Your task to perform on an android device: turn off smart reply in the gmail app Image 0: 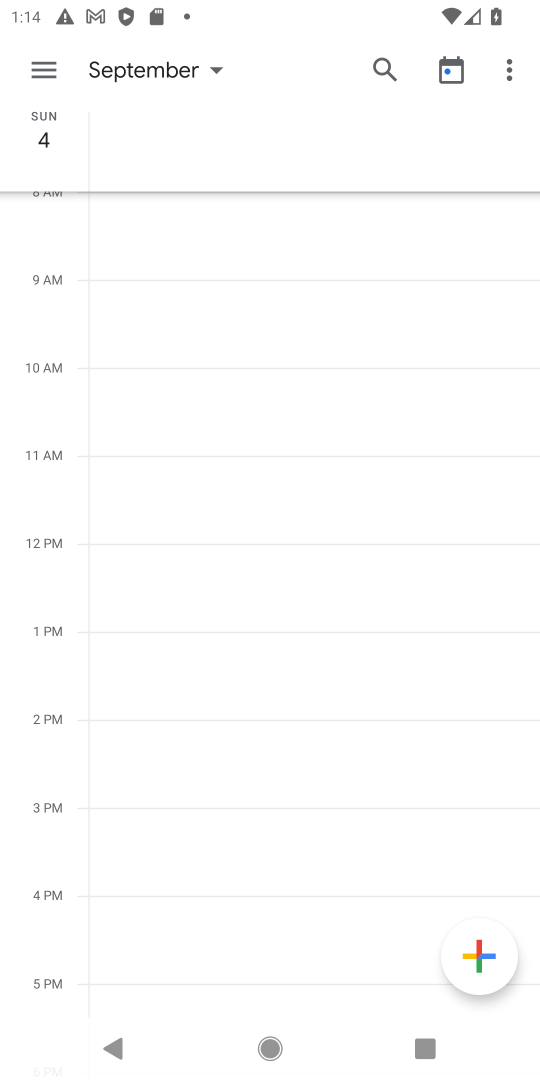
Step 0: press home button
Your task to perform on an android device: turn off smart reply in the gmail app Image 1: 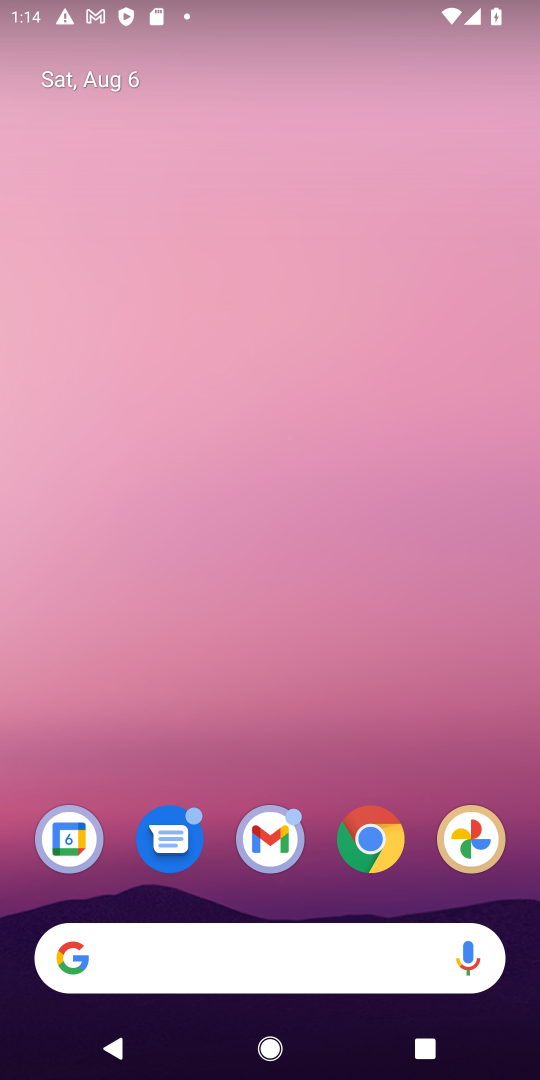
Step 1: click (264, 859)
Your task to perform on an android device: turn off smart reply in the gmail app Image 2: 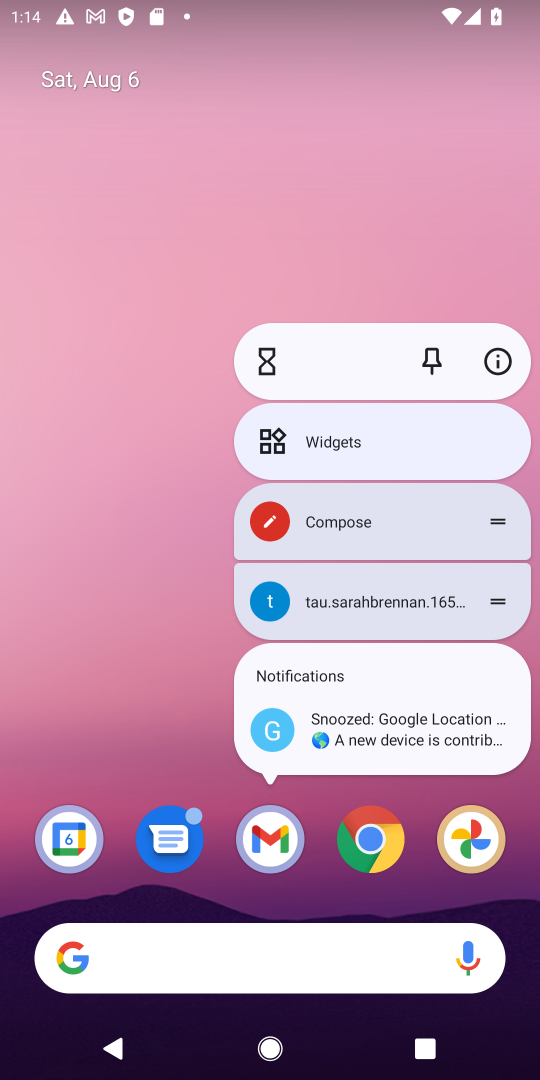
Step 2: click (264, 859)
Your task to perform on an android device: turn off smart reply in the gmail app Image 3: 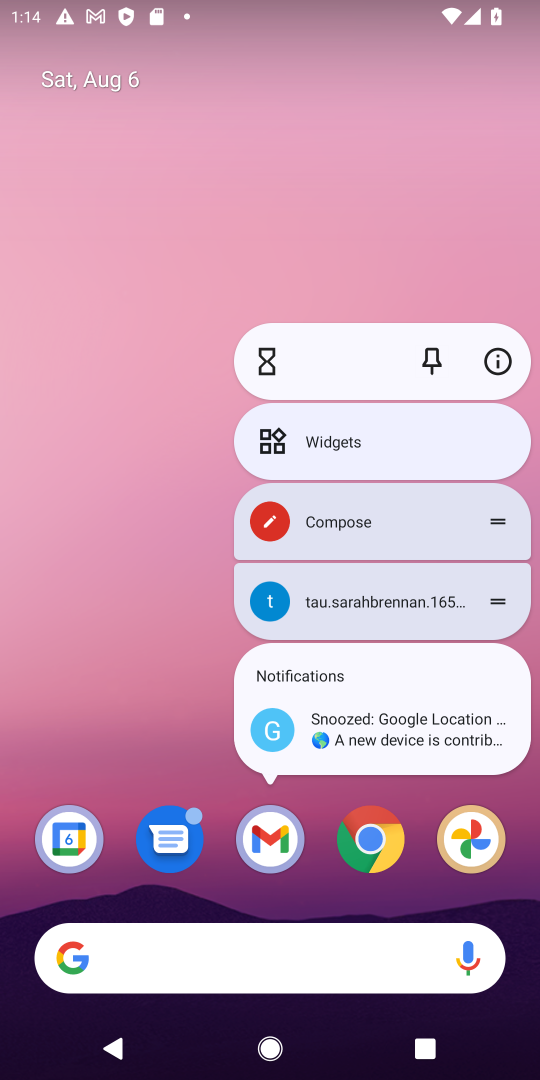
Step 3: click (264, 859)
Your task to perform on an android device: turn off smart reply in the gmail app Image 4: 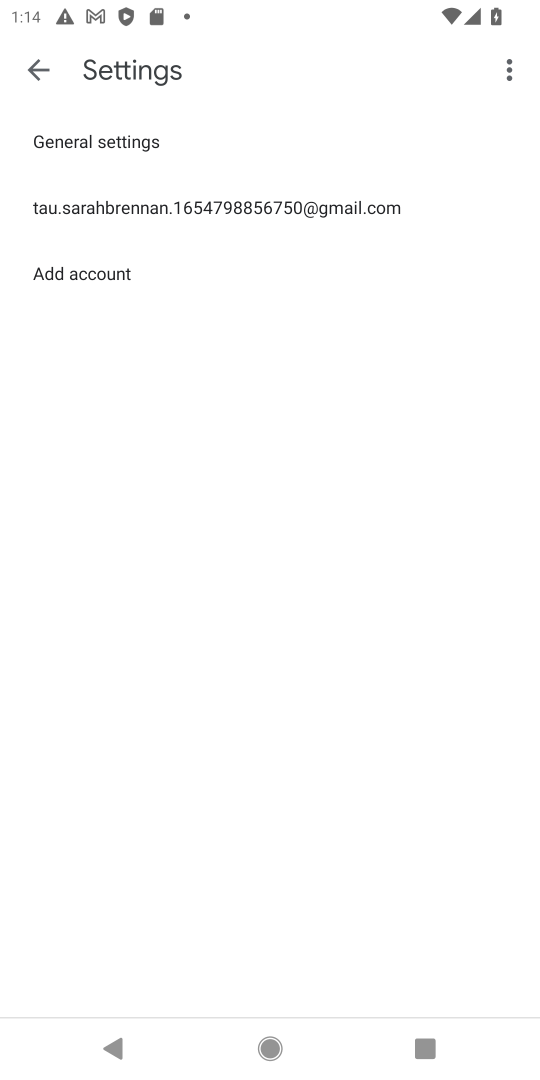
Step 4: click (314, 198)
Your task to perform on an android device: turn off smart reply in the gmail app Image 5: 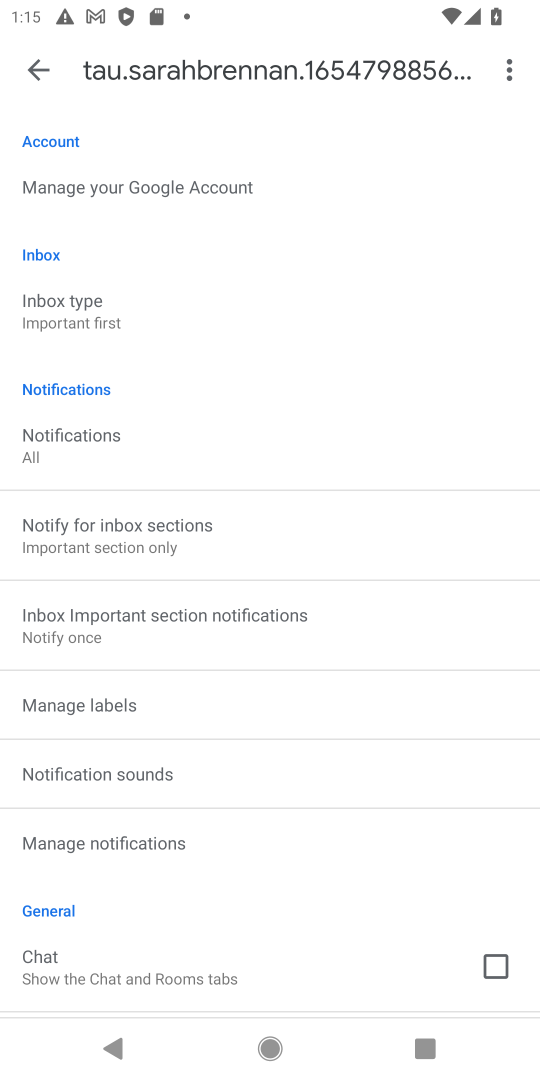
Step 5: drag from (273, 891) to (286, 72)
Your task to perform on an android device: turn off smart reply in the gmail app Image 6: 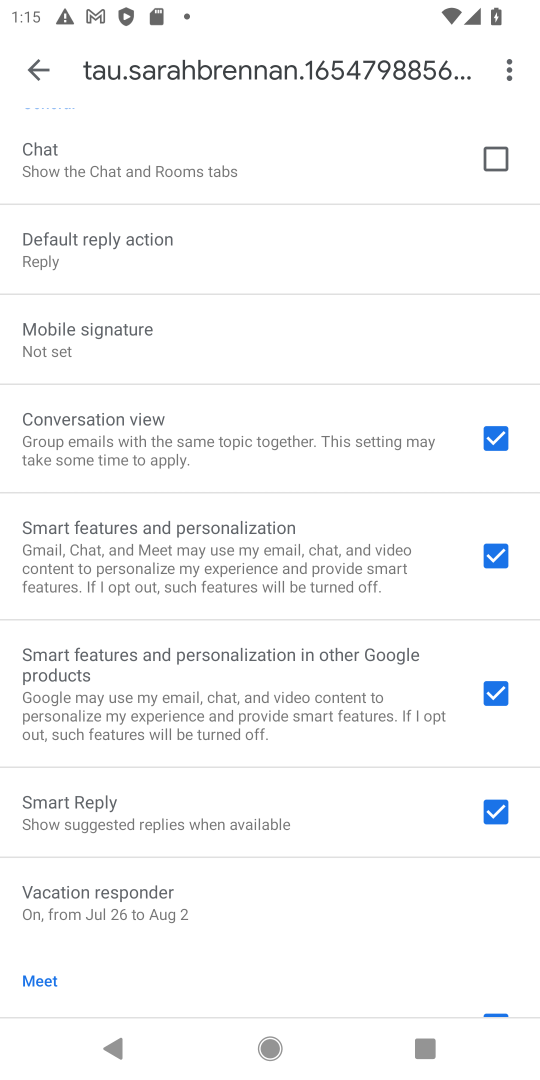
Step 6: drag from (287, 761) to (296, 88)
Your task to perform on an android device: turn off smart reply in the gmail app Image 7: 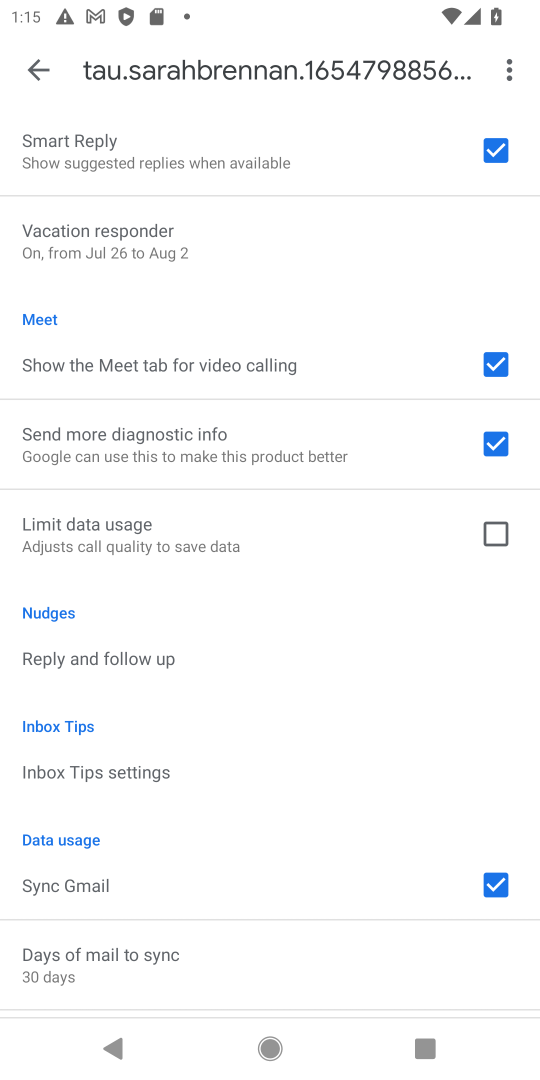
Step 7: drag from (314, 819) to (268, 88)
Your task to perform on an android device: turn off smart reply in the gmail app Image 8: 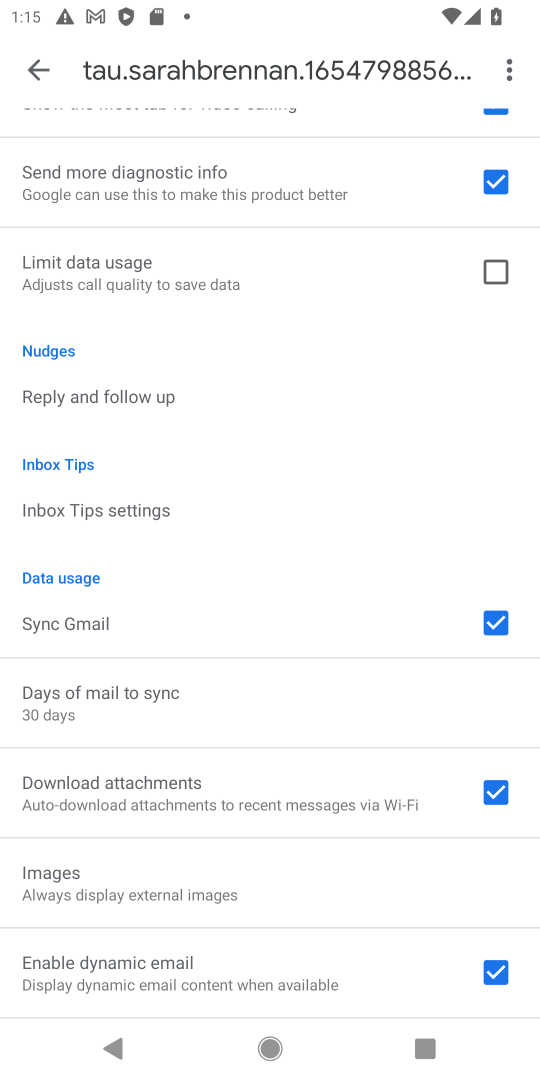
Step 8: drag from (338, 893) to (331, 38)
Your task to perform on an android device: turn off smart reply in the gmail app Image 9: 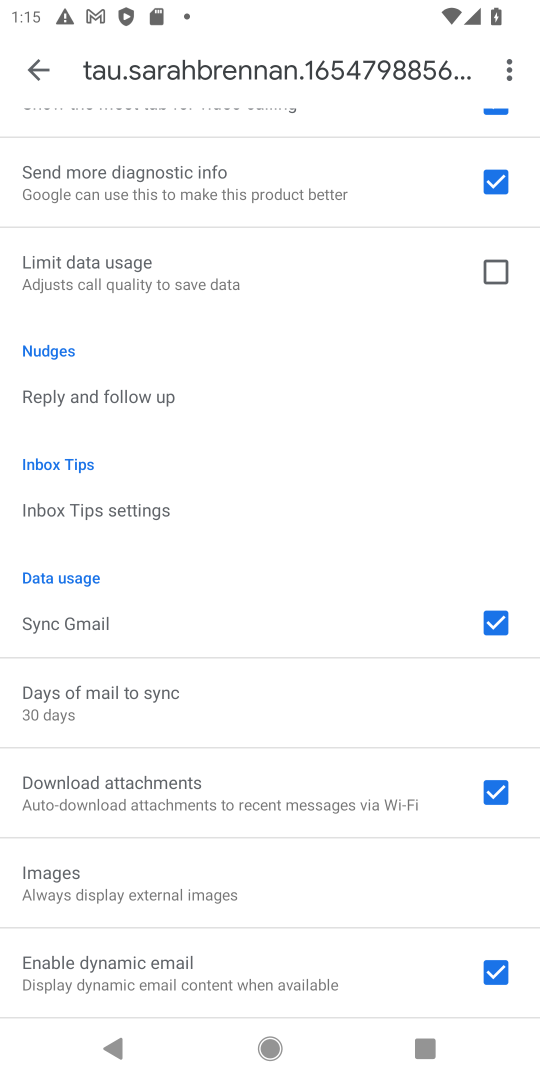
Step 9: drag from (310, 845) to (307, 194)
Your task to perform on an android device: turn off smart reply in the gmail app Image 10: 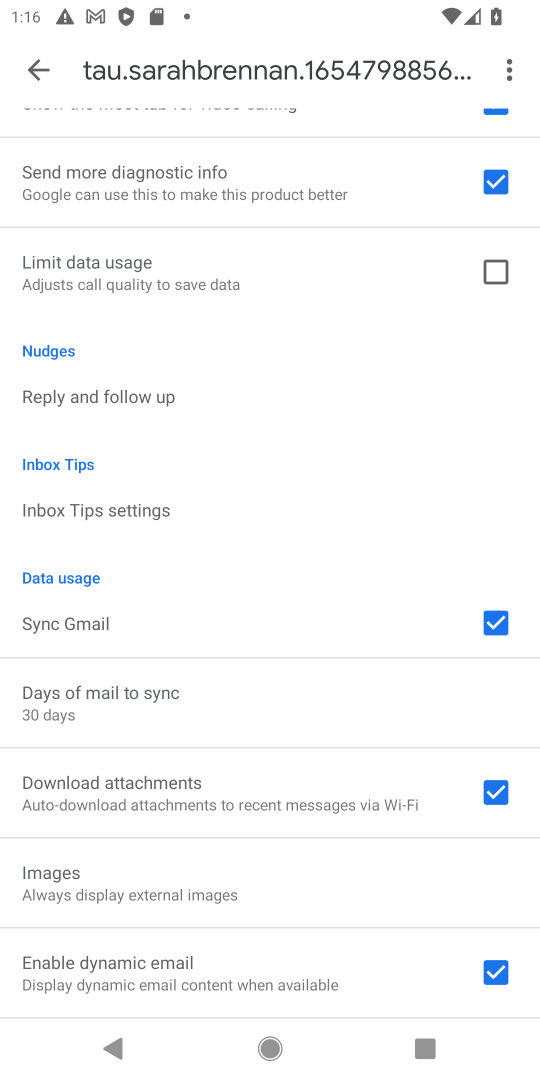
Step 10: drag from (290, 362) to (261, 976)
Your task to perform on an android device: turn off smart reply in the gmail app Image 11: 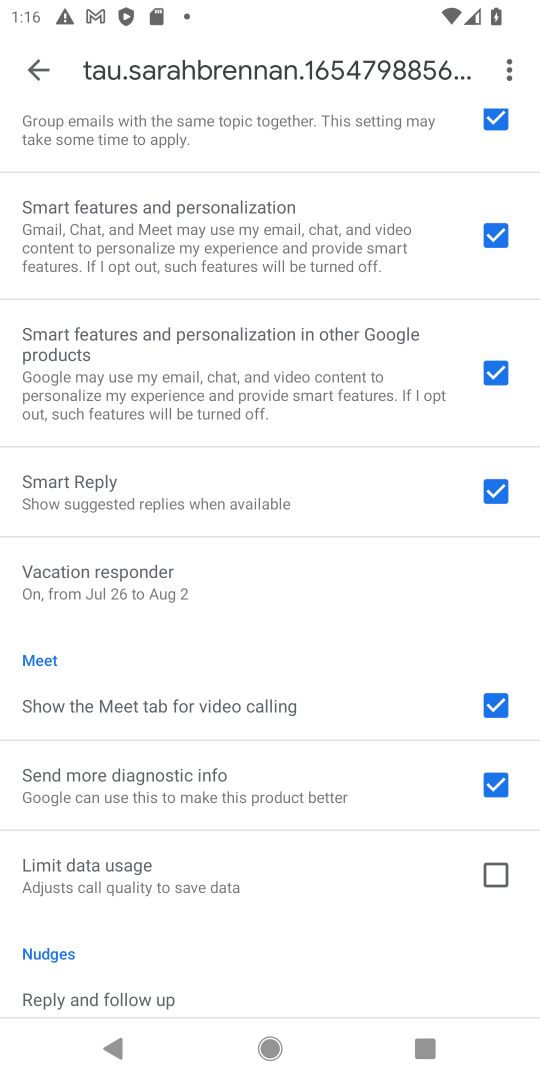
Step 11: click (484, 483)
Your task to perform on an android device: turn off smart reply in the gmail app Image 12: 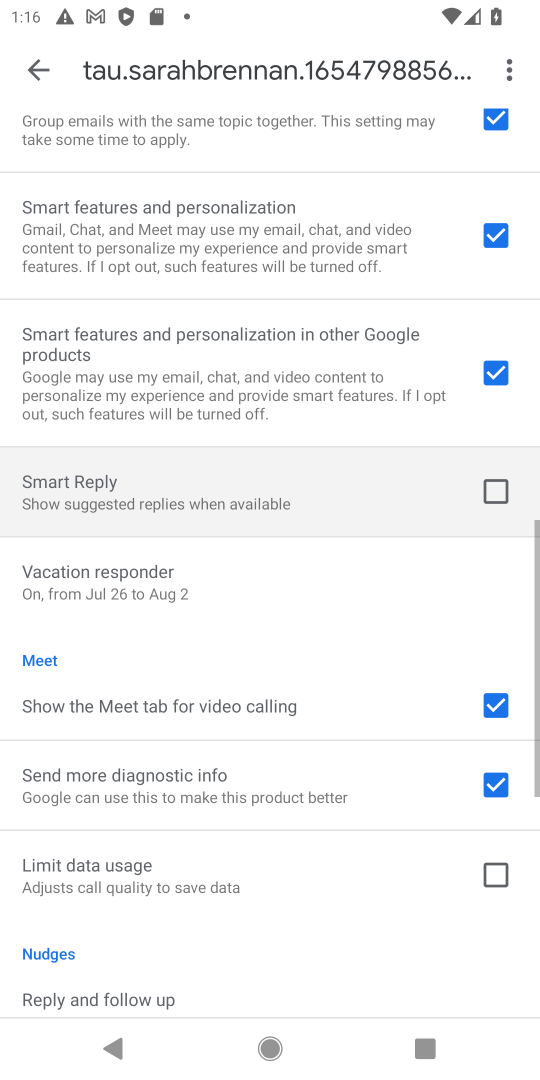
Step 12: task complete